Your task to perform on an android device: Open maps Image 0: 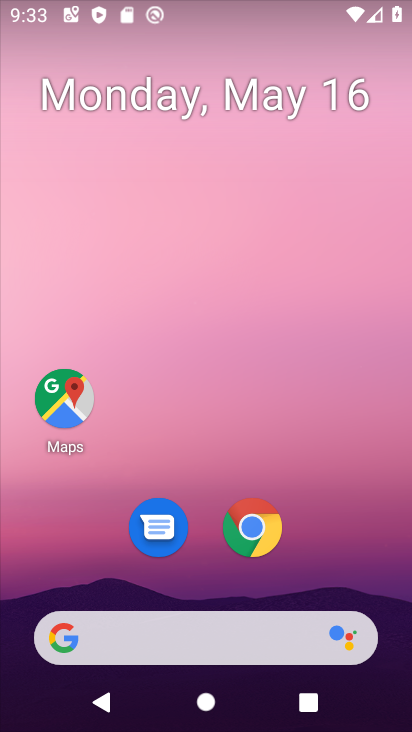
Step 0: click (63, 409)
Your task to perform on an android device: Open maps Image 1: 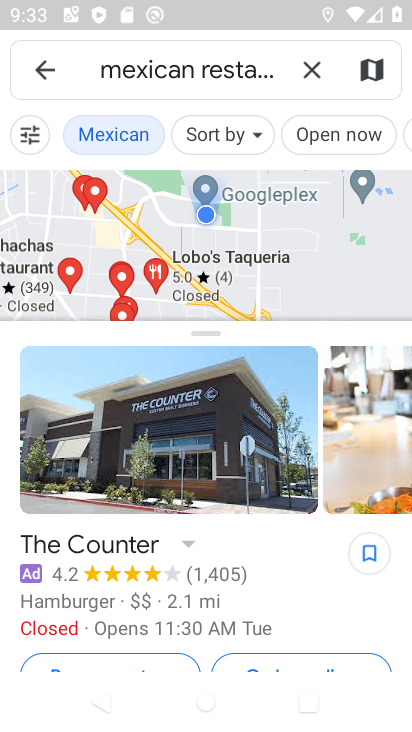
Step 1: task complete